Your task to perform on an android device: Open sound settings Image 0: 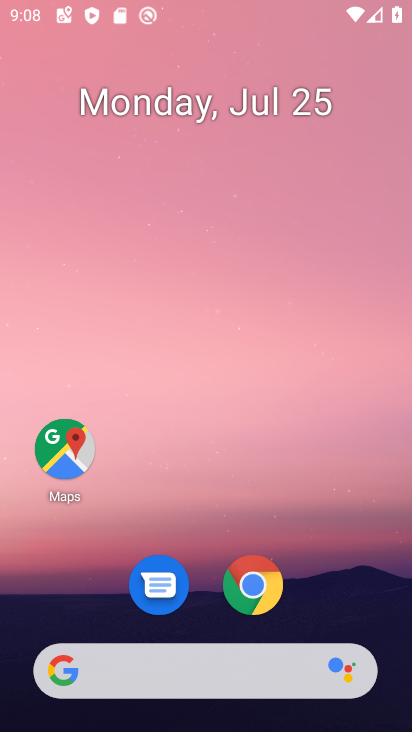
Step 0: click (256, 583)
Your task to perform on an android device: Open sound settings Image 1: 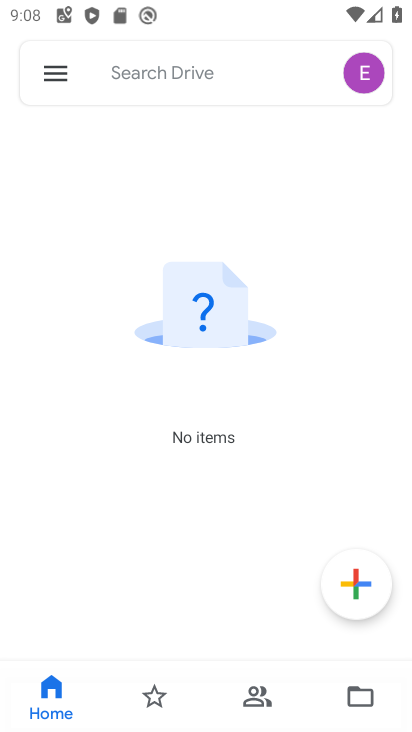
Step 1: press home button
Your task to perform on an android device: Open sound settings Image 2: 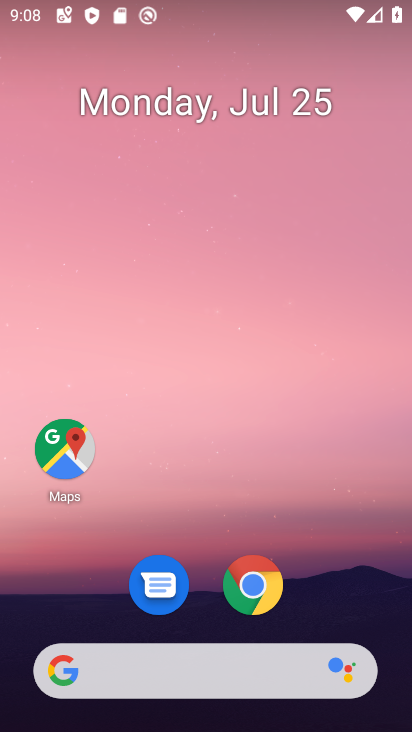
Step 2: drag from (232, 674) to (357, 52)
Your task to perform on an android device: Open sound settings Image 3: 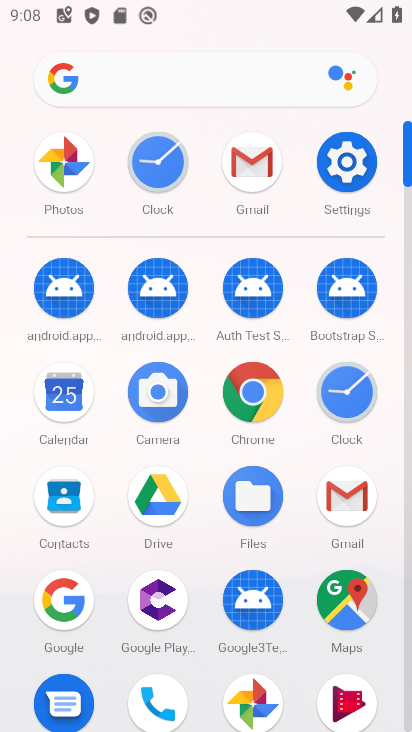
Step 3: click (352, 172)
Your task to perform on an android device: Open sound settings Image 4: 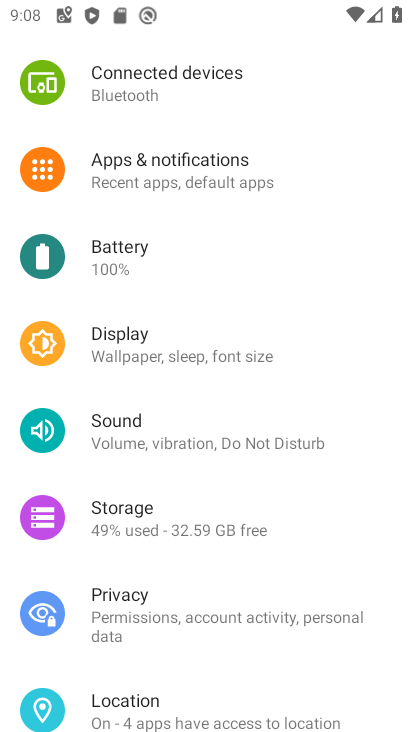
Step 4: click (158, 432)
Your task to perform on an android device: Open sound settings Image 5: 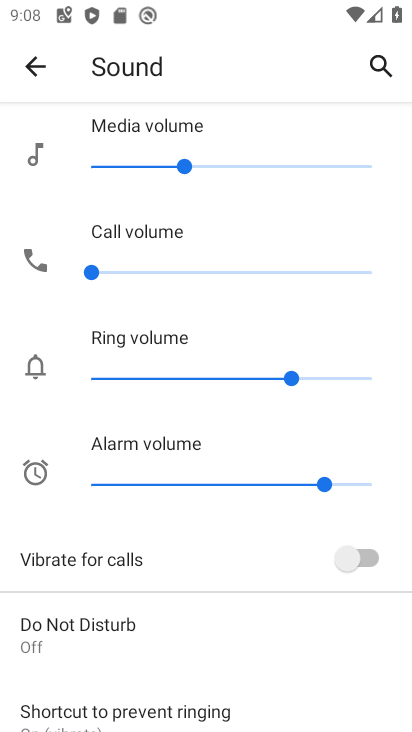
Step 5: task complete